Your task to perform on an android device: change timer sound Image 0: 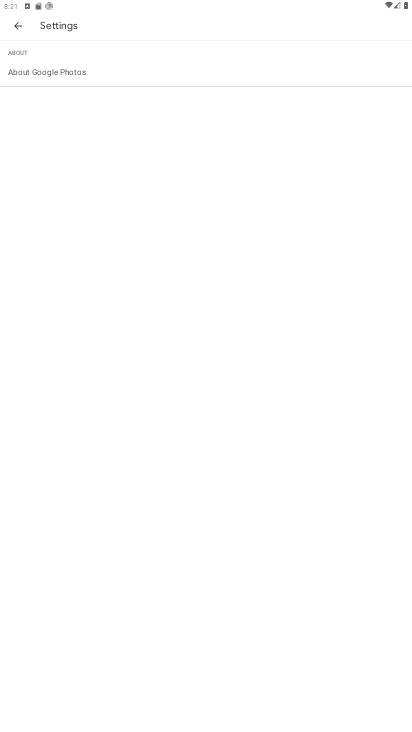
Step 0: press home button
Your task to perform on an android device: change timer sound Image 1: 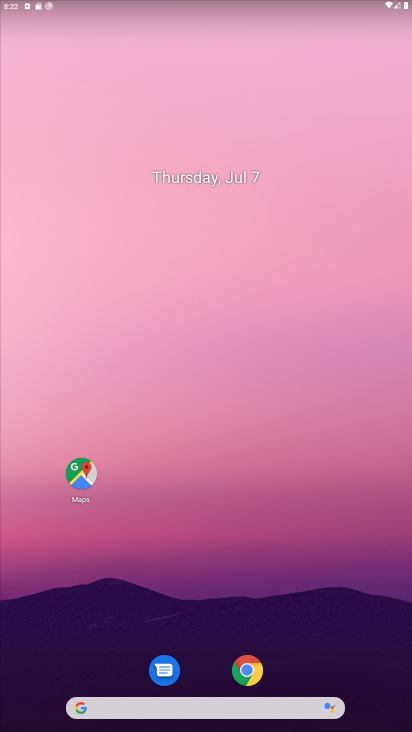
Step 1: drag from (20, 649) to (297, 77)
Your task to perform on an android device: change timer sound Image 2: 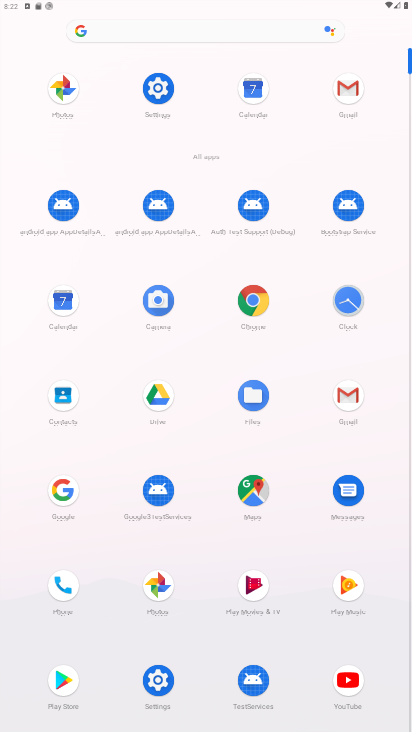
Step 2: click (354, 301)
Your task to perform on an android device: change timer sound Image 3: 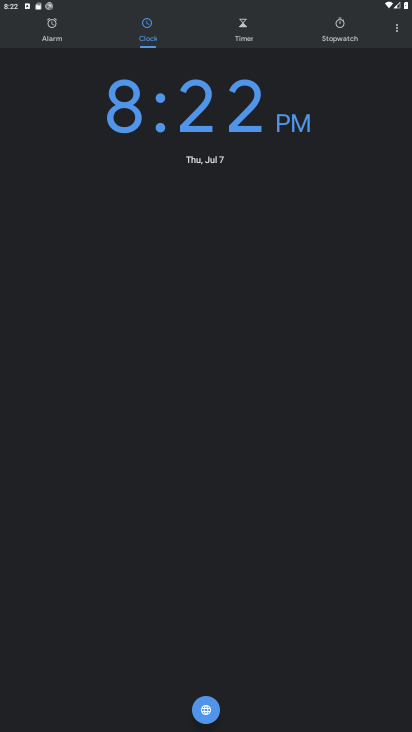
Step 3: click (398, 28)
Your task to perform on an android device: change timer sound Image 4: 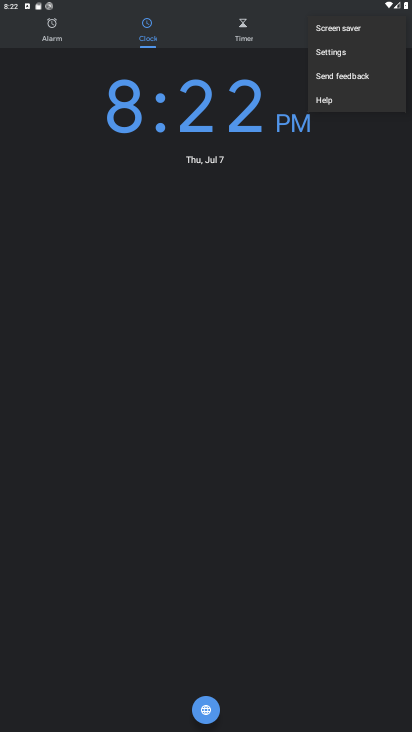
Step 4: click (352, 49)
Your task to perform on an android device: change timer sound Image 5: 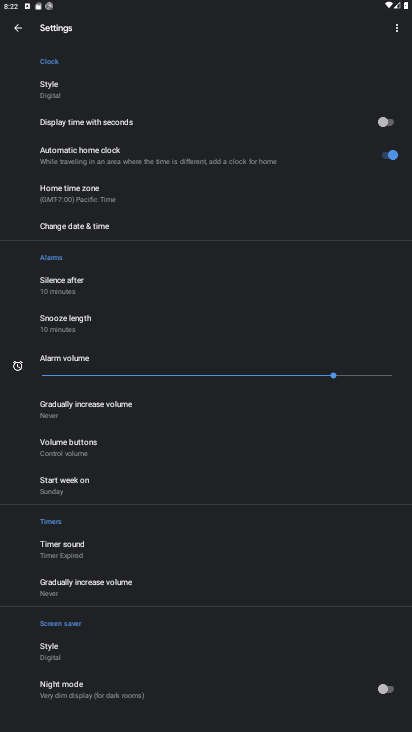
Step 5: drag from (174, 281) to (226, 106)
Your task to perform on an android device: change timer sound Image 6: 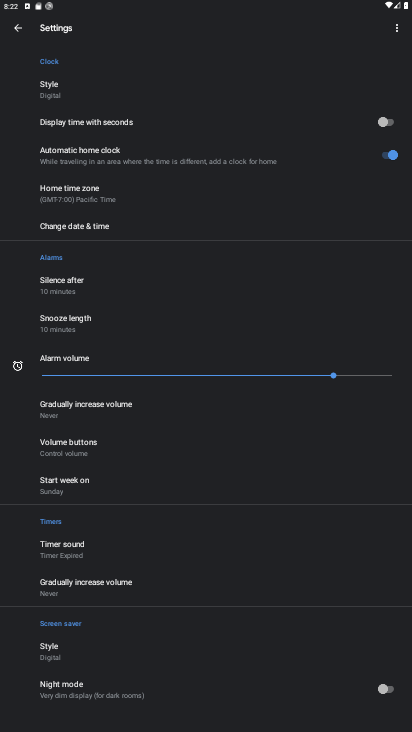
Step 6: drag from (226, 106) to (276, 21)
Your task to perform on an android device: change timer sound Image 7: 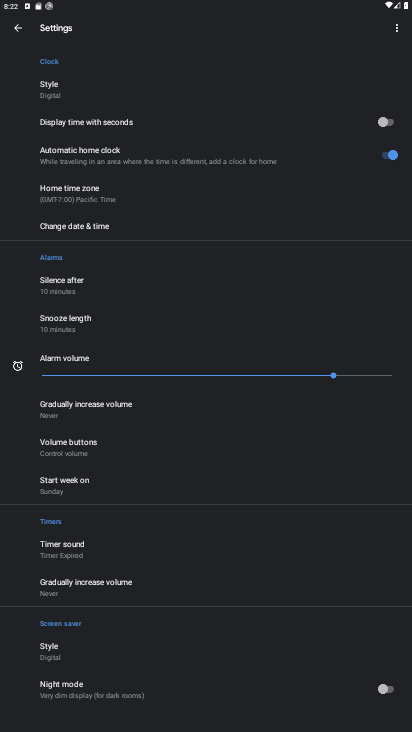
Step 7: drag from (254, 461) to (276, 142)
Your task to perform on an android device: change timer sound Image 8: 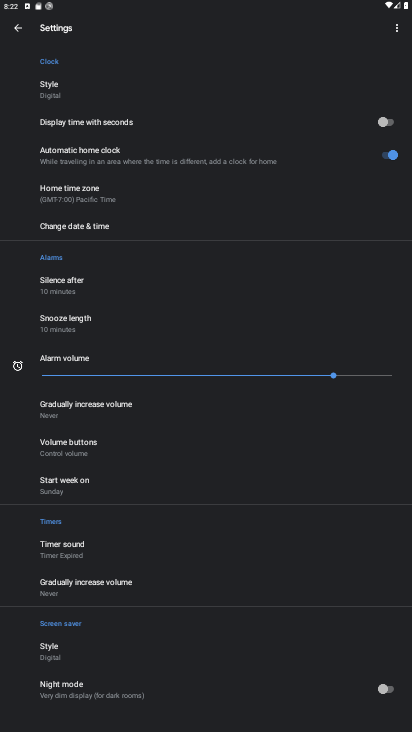
Step 8: click (91, 549)
Your task to perform on an android device: change timer sound Image 9: 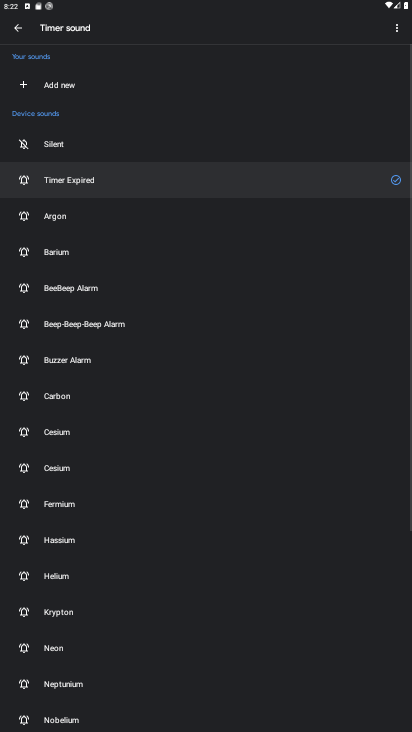
Step 9: click (52, 219)
Your task to perform on an android device: change timer sound Image 10: 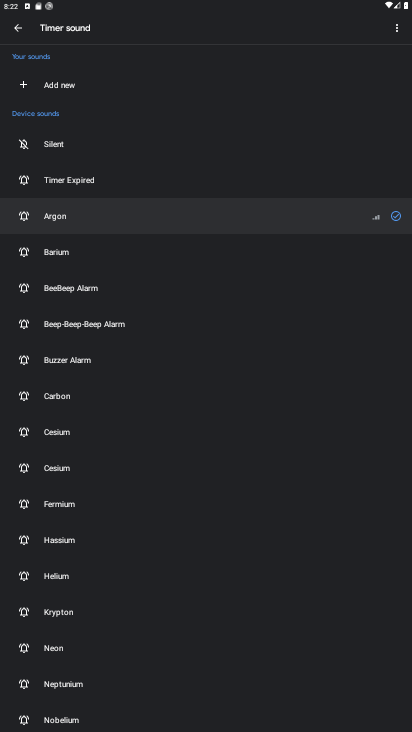
Step 10: task complete